Your task to perform on an android device: Go to sound settings Image 0: 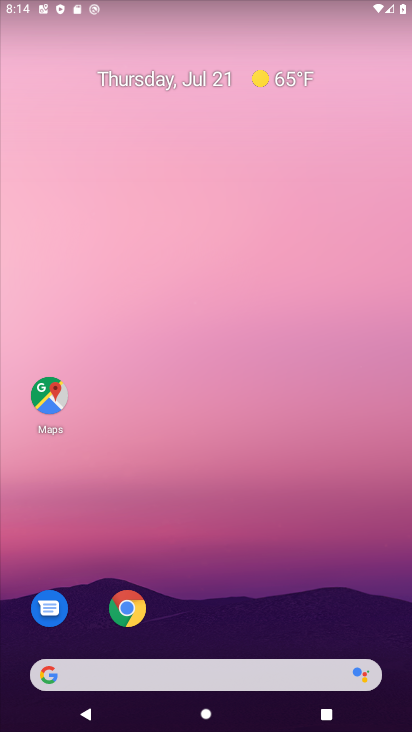
Step 0: drag from (176, 671) to (303, 81)
Your task to perform on an android device: Go to sound settings Image 1: 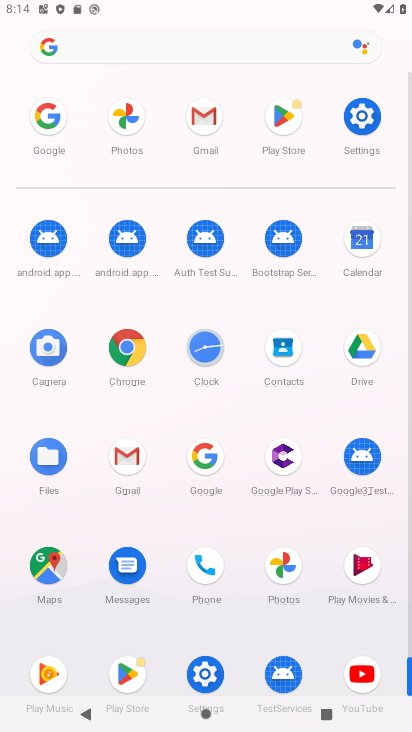
Step 1: click (363, 115)
Your task to perform on an android device: Go to sound settings Image 2: 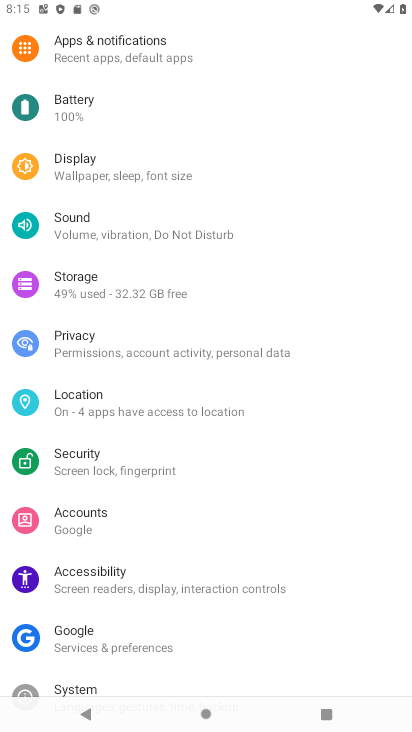
Step 2: click (151, 235)
Your task to perform on an android device: Go to sound settings Image 3: 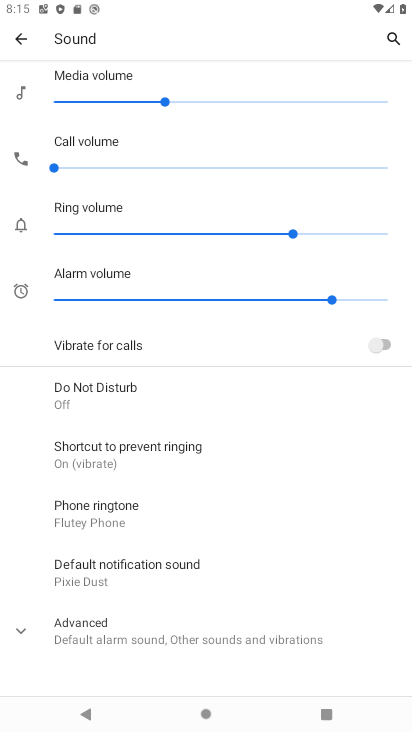
Step 3: task complete